Your task to perform on an android device: Turn on the flashlight Image 0: 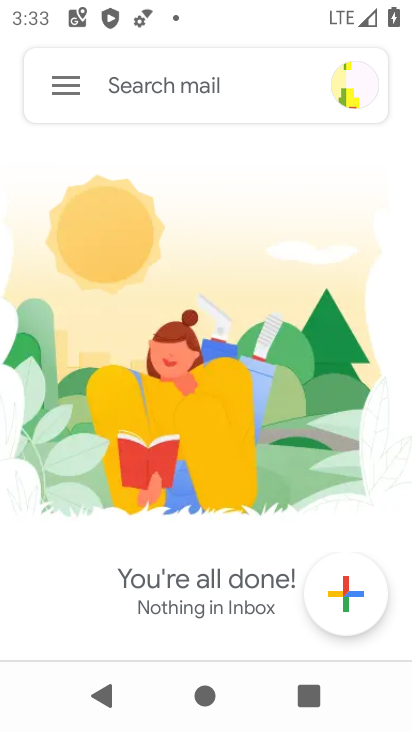
Step 0: drag from (231, 616) to (268, 208)
Your task to perform on an android device: Turn on the flashlight Image 1: 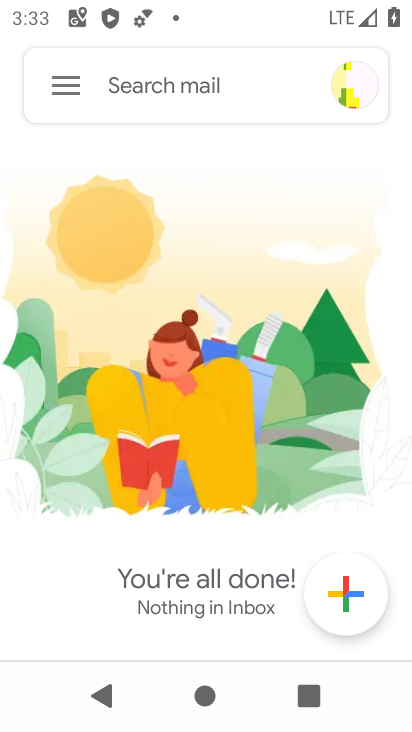
Step 1: press home button
Your task to perform on an android device: Turn on the flashlight Image 2: 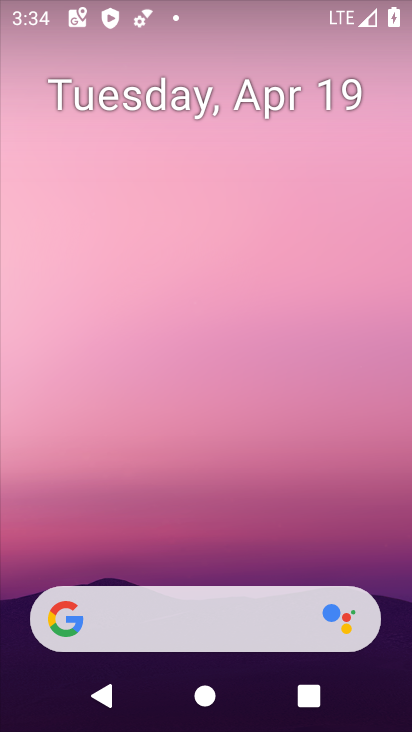
Step 2: drag from (202, 540) to (255, 258)
Your task to perform on an android device: Turn on the flashlight Image 3: 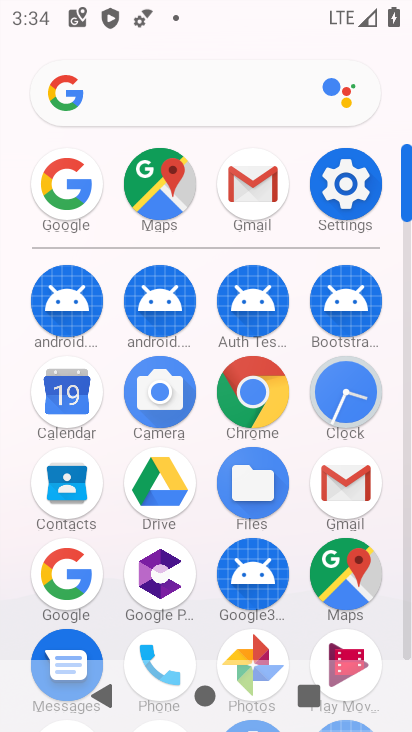
Step 3: click (342, 188)
Your task to perform on an android device: Turn on the flashlight Image 4: 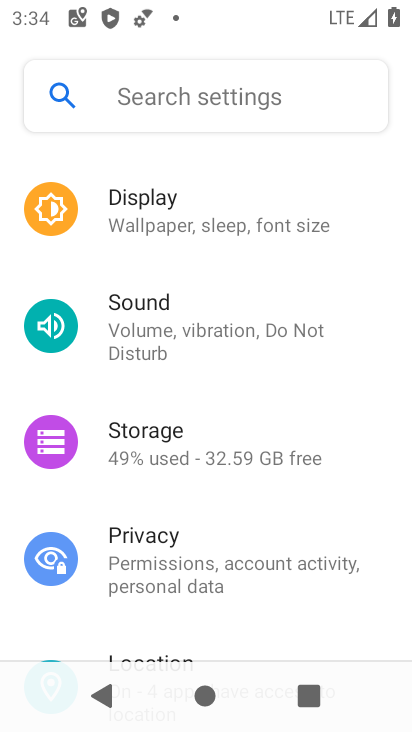
Step 4: drag from (248, 276) to (258, 382)
Your task to perform on an android device: Turn on the flashlight Image 5: 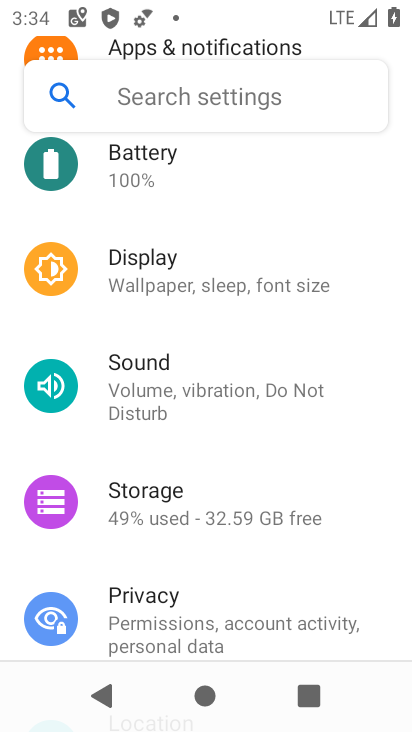
Step 5: drag from (253, 220) to (302, 401)
Your task to perform on an android device: Turn on the flashlight Image 6: 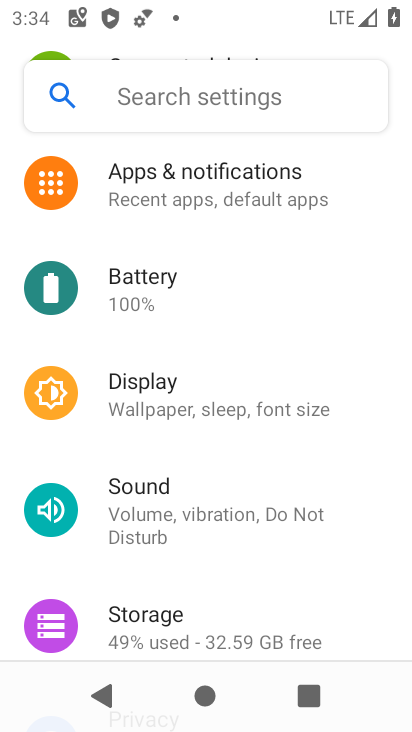
Step 6: click (168, 283)
Your task to perform on an android device: Turn on the flashlight Image 7: 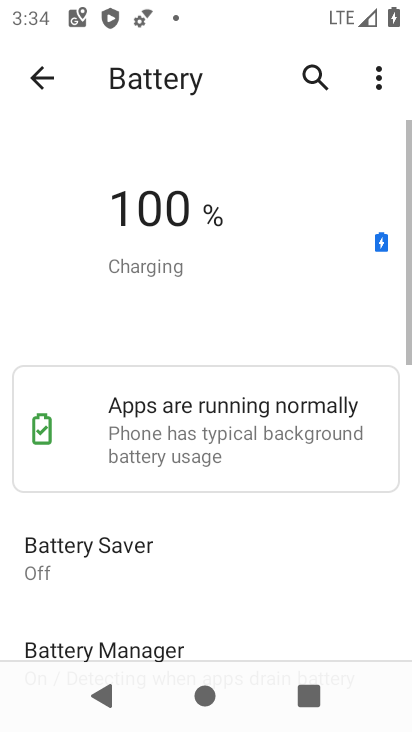
Step 7: drag from (202, 521) to (220, 349)
Your task to perform on an android device: Turn on the flashlight Image 8: 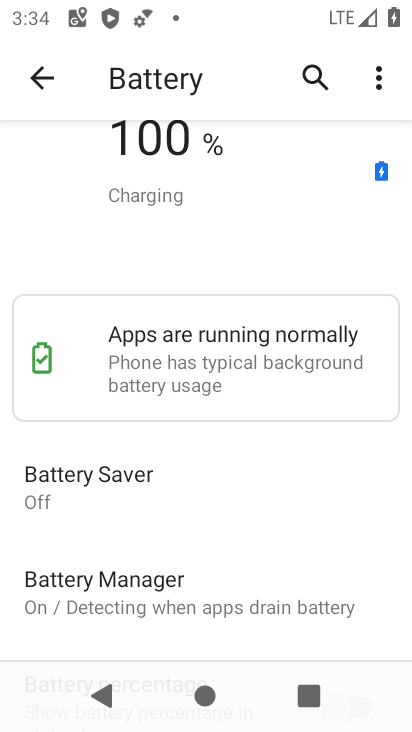
Step 8: drag from (216, 479) to (274, 336)
Your task to perform on an android device: Turn on the flashlight Image 9: 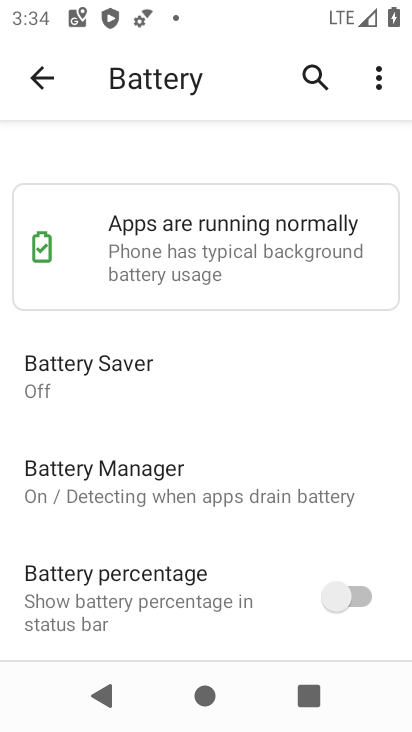
Step 9: drag from (206, 552) to (236, 416)
Your task to perform on an android device: Turn on the flashlight Image 10: 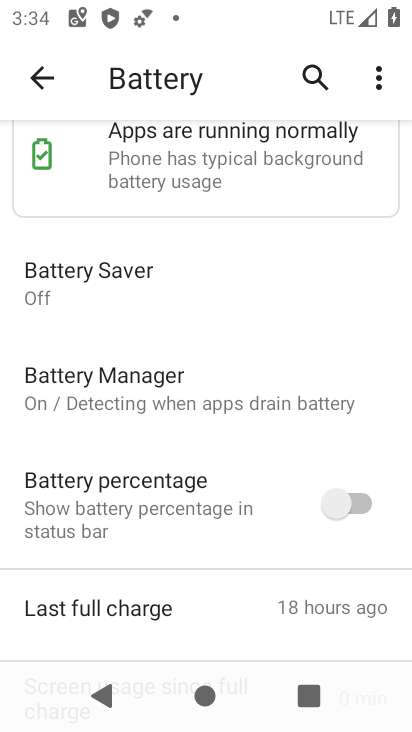
Step 10: drag from (212, 545) to (235, 425)
Your task to perform on an android device: Turn on the flashlight Image 11: 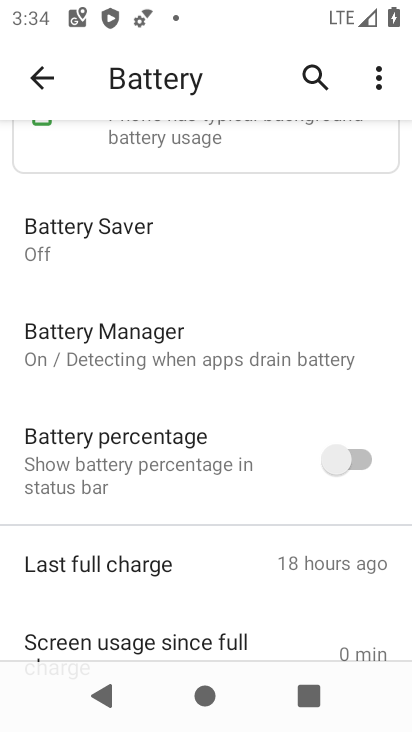
Step 11: drag from (189, 558) to (248, 415)
Your task to perform on an android device: Turn on the flashlight Image 12: 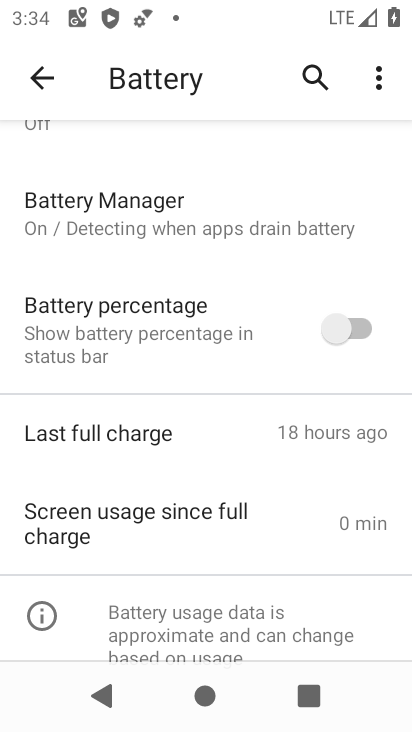
Step 12: drag from (217, 551) to (250, 405)
Your task to perform on an android device: Turn on the flashlight Image 13: 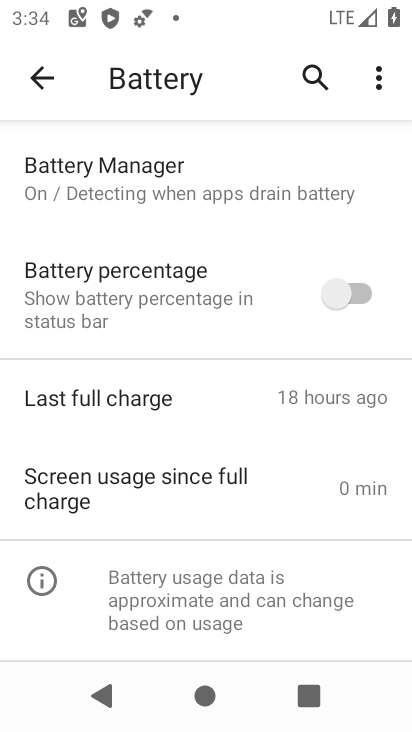
Step 13: click (52, 68)
Your task to perform on an android device: Turn on the flashlight Image 14: 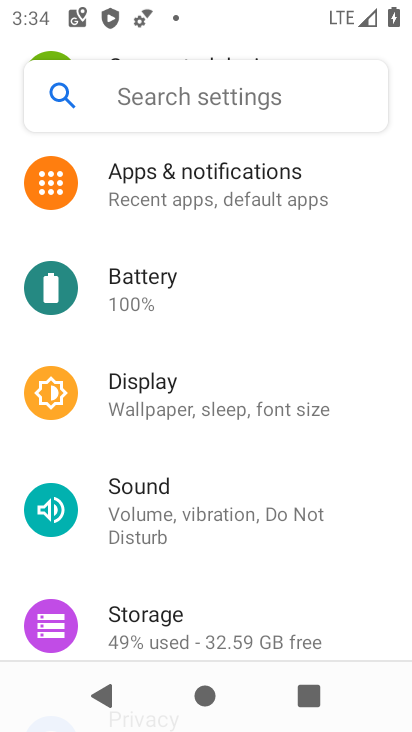
Step 14: click (199, 396)
Your task to perform on an android device: Turn on the flashlight Image 15: 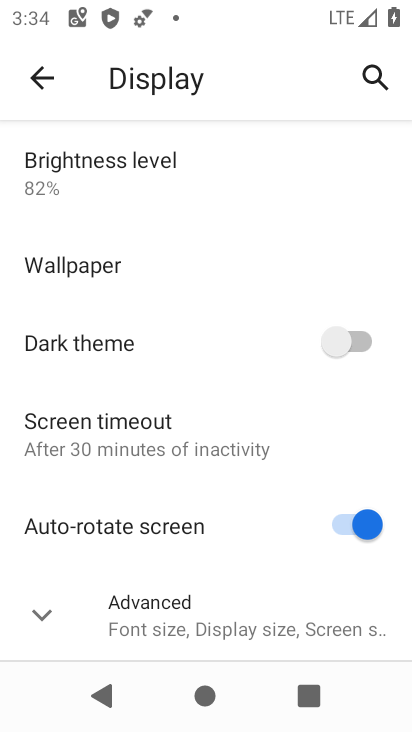
Step 15: drag from (212, 502) to (216, 415)
Your task to perform on an android device: Turn on the flashlight Image 16: 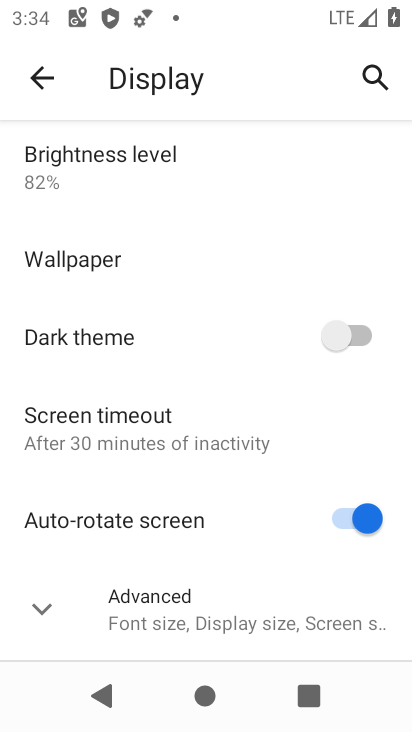
Step 16: click (160, 507)
Your task to perform on an android device: Turn on the flashlight Image 17: 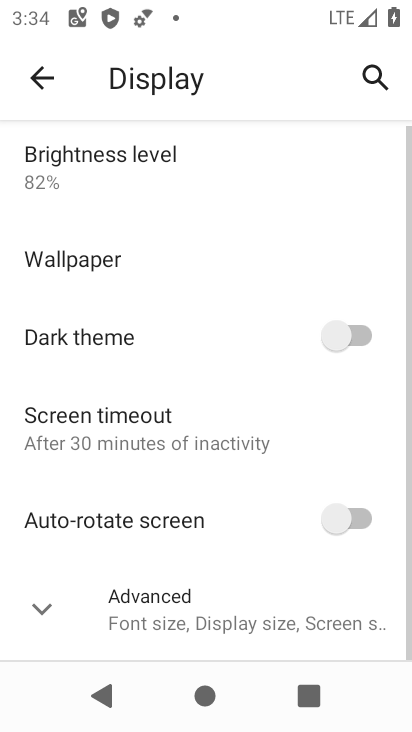
Step 17: click (160, 507)
Your task to perform on an android device: Turn on the flashlight Image 18: 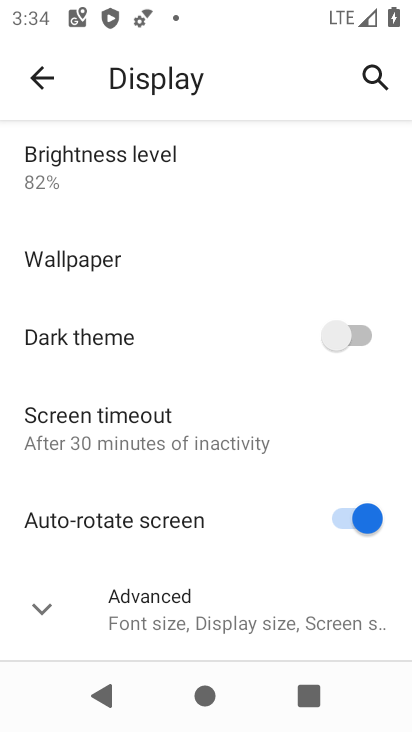
Step 18: click (180, 450)
Your task to perform on an android device: Turn on the flashlight Image 19: 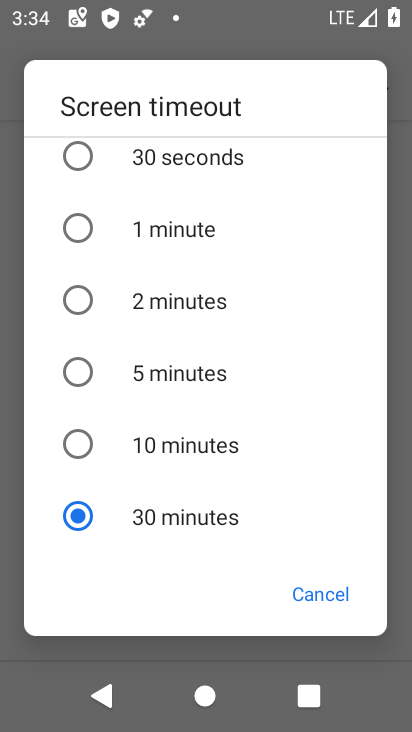
Step 19: drag from (241, 361) to (244, 454)
Your task to perform on an android device: Turn on the flashlight Image 20: 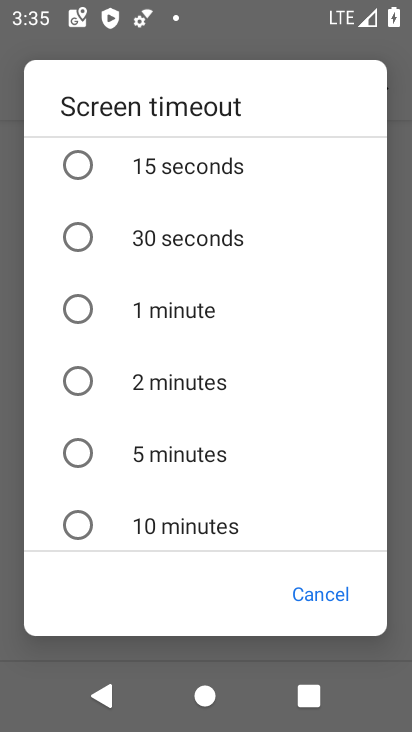
Step 20: click (309, 605)
Your task to perform on an android device: Turn on the flashlight Image 21: 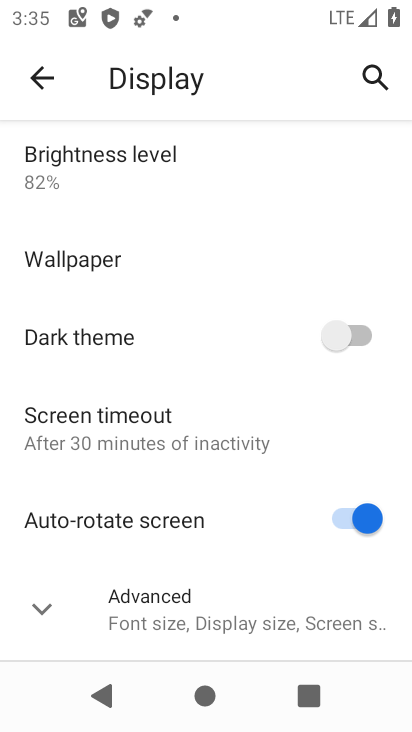
Step 21: task complete